Your task to perform on an android device: change the clock display to digital Image 0: 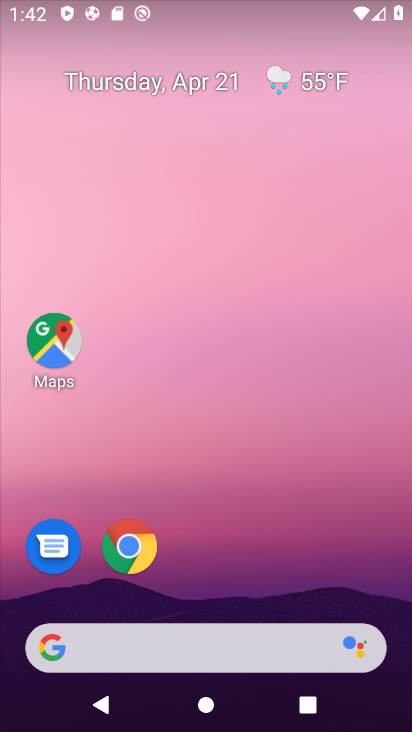
Step 0: drag from (240, 580) to (270, 2)
Your task to perform on an android device: change the clock display to digital Image 1: 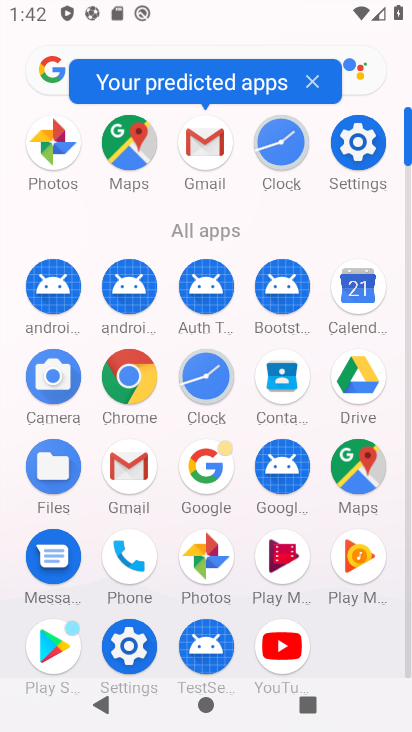
Step 1: click (295, 140)
Your task to perform on an android device: change the clock display to digital Image 2: 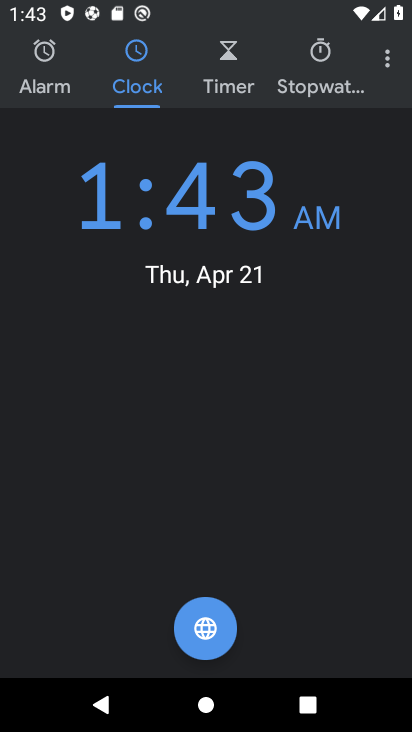
Step 2: click (391, 58)
Your task to perform on an android device: change the clock display to digital Image 3: 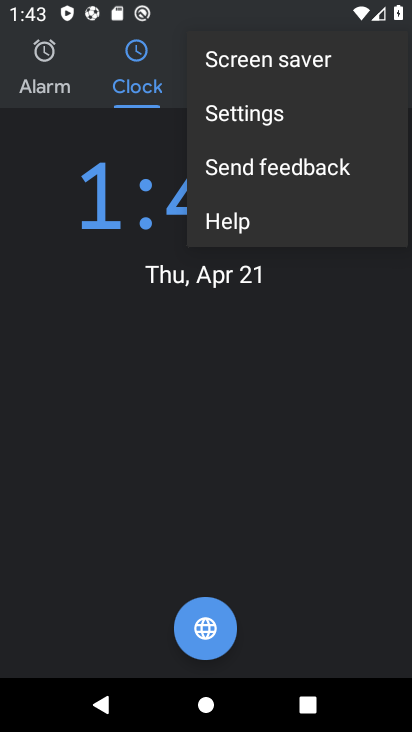
Step 3: click (280, 117)
Your task to perform on an android device: change the clock display to digital Image 4: 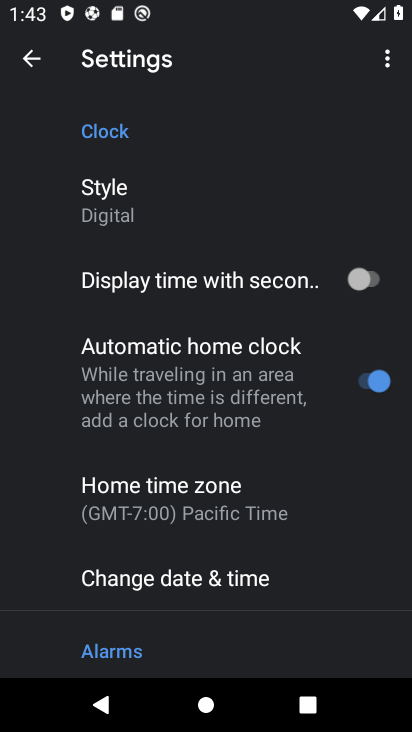
Step 4: click (198, 212)
Your task to perform on an android device: change the clock display to digital Image 5: 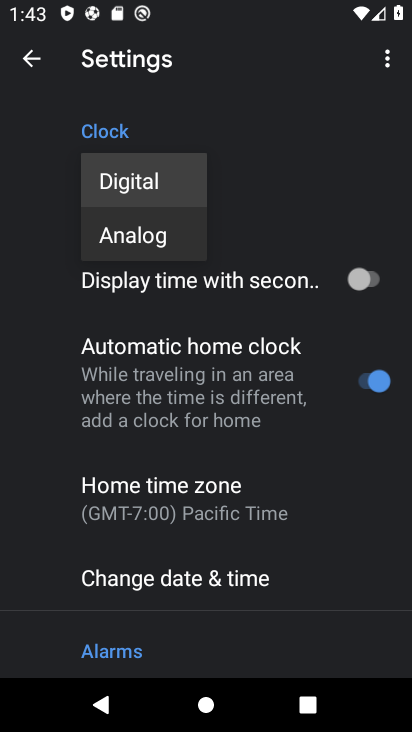
Step 5: task complete